Your task to perform on an android device: toggle notifications settings in the gmail app Image 0: 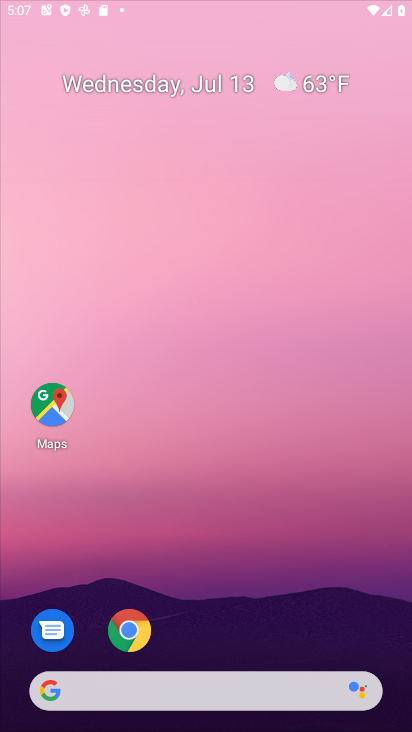
Step 0: press home button
Your task to perform on an android device: toggle notifications settings in the gmail app Image 1: 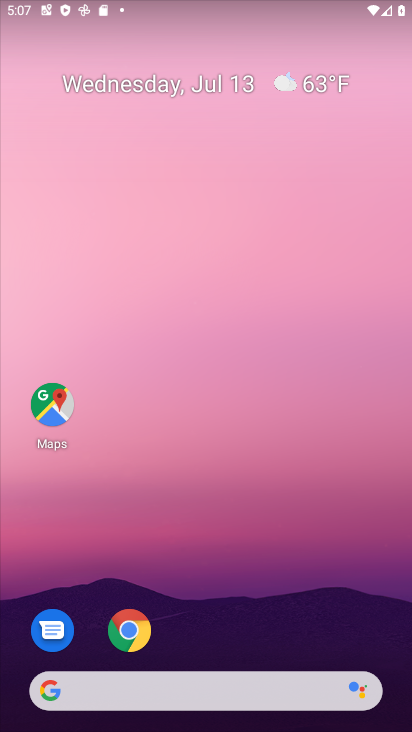
Step 1: drag from (198, 639) to (274, 11)
Your task to perform on an android device: toggle notifications settings in the gmail app Image 2: 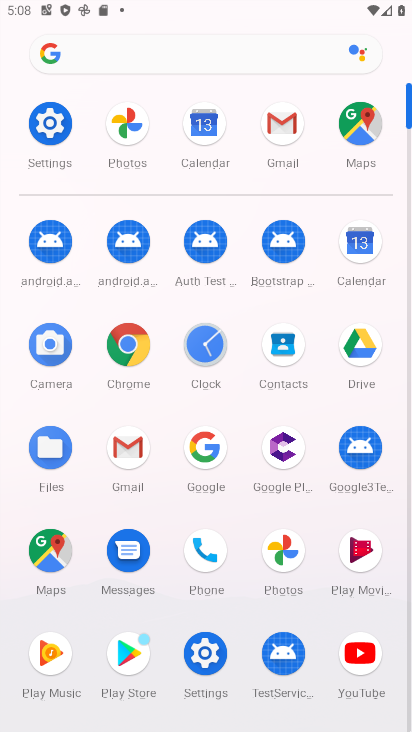
Step 2: click (285, 126)
Your task to perform on an android device: toggle notifications settings in the gmail app Image 3: 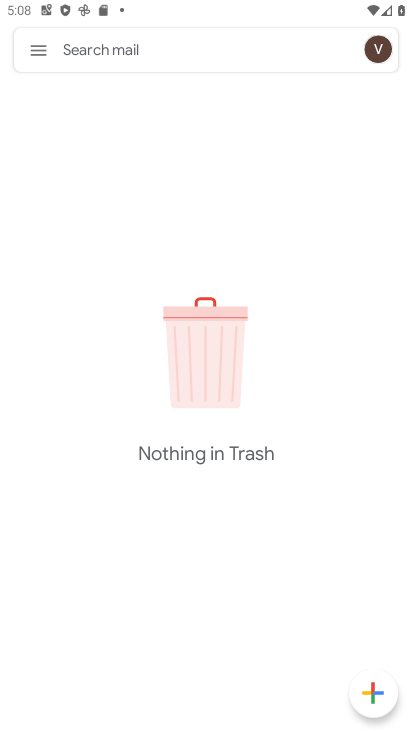
Step 3: click (44, 42)
Your task to perform on an android device: toggle notifications settings in the gmail app Image 4: 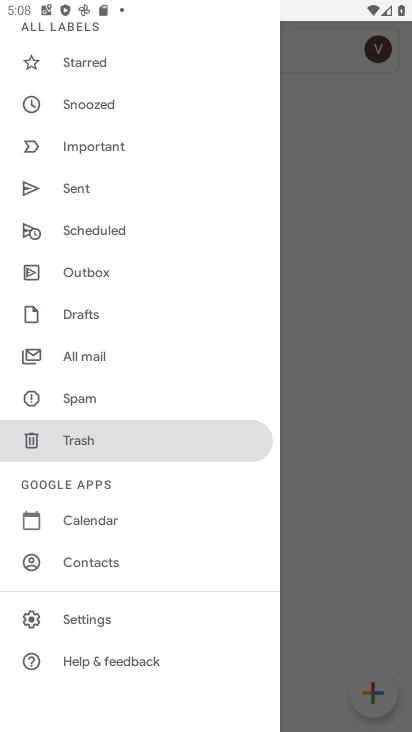
Step 4: click (78, 627)
Your task to perform on an android device: toggle notifications settings in the gmail app Image 5: 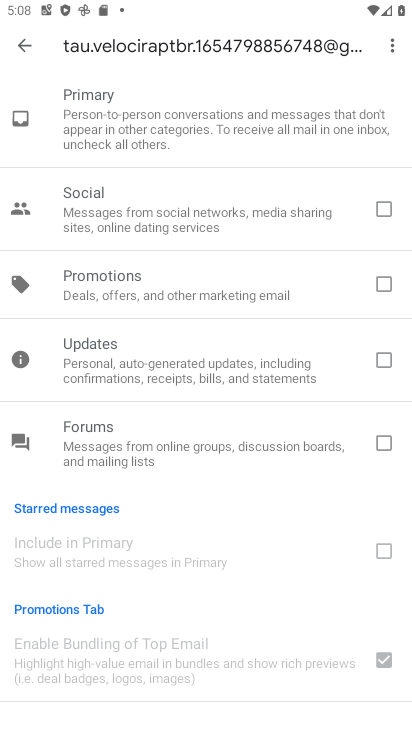
Step 5: press back button
Your task to perform on an android device: toggle notifications settings in the gmail app Image 6: 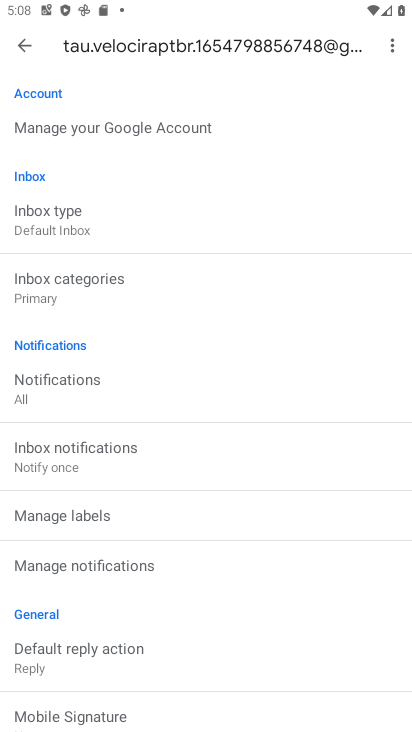
Step 6: click (85, 566)
Your task to perform on an android device: toggle notifications settings in the gmail app Image 7: 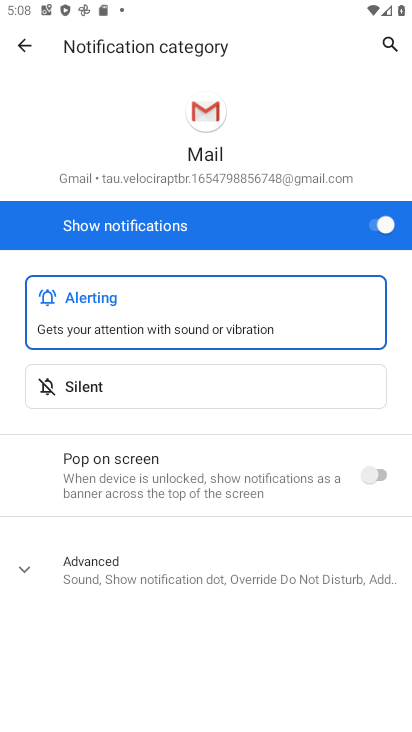
Step 7: click (384, 224)
Your task to perform on an android device: toggle notifications settings in the gmail app Image 8: 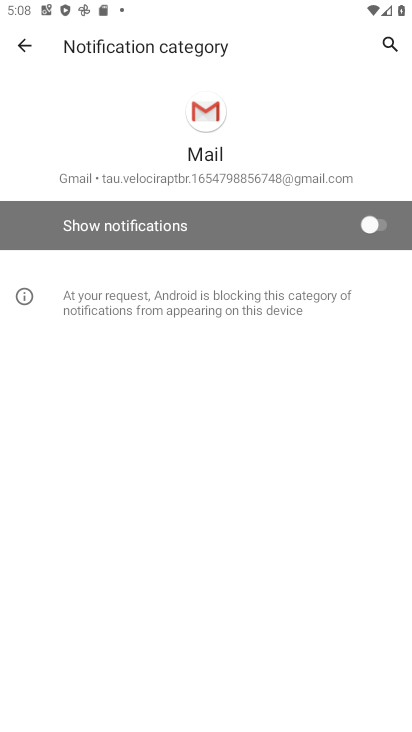
Step 8: task complete